Your task to perform on an android device: turn off airplane mode Image 0: 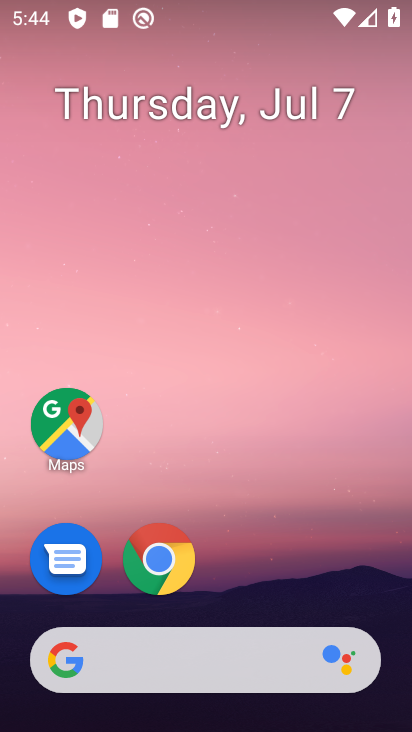
Step 0: drag from (229, 562) to (296, 7)
Your task to perform on an android device: turn off airplane mode Image 1: 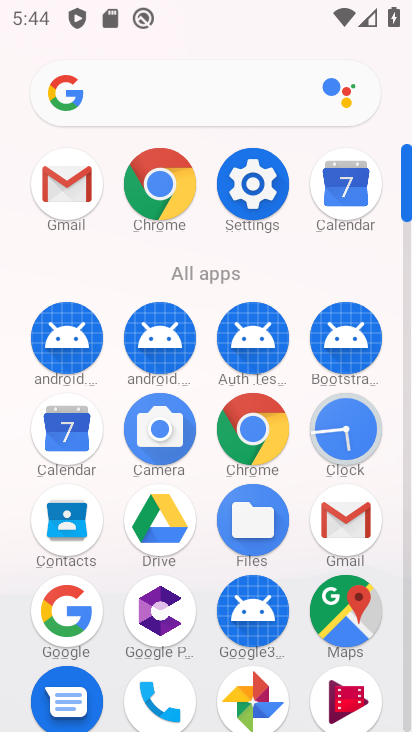
Step 1: click (246, 246)
Your task to perform on an android device: turn off airplane mode Image 2: 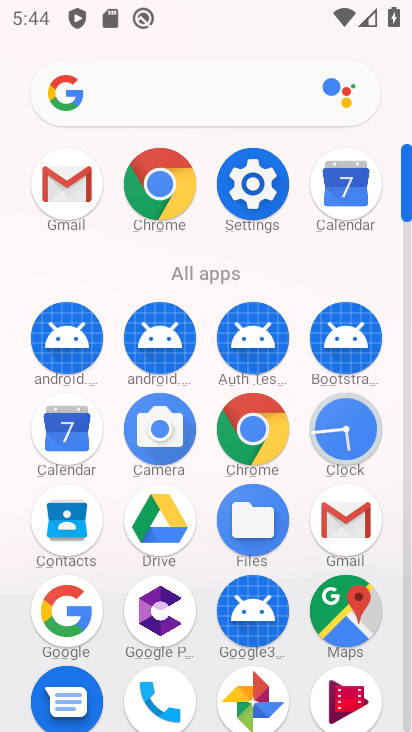
Step 2: click (252, 207)
Your task to perform on an android device: turn off airplane mode Image 3: 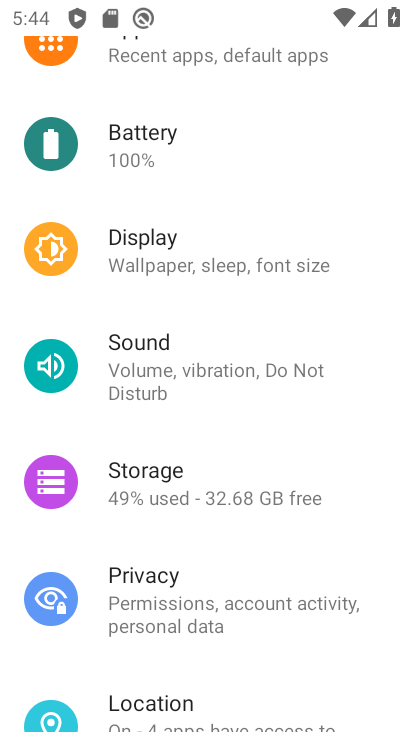
Step 3: drag from (252, 207) to (233, 641)
Your task to perform on an android device: turn off airplane mode Image 4: 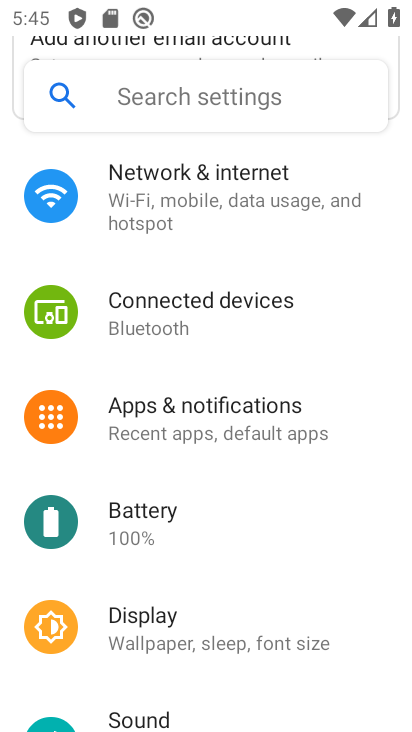
Step 4: click (202, 205)
Your task to perform on an android device: turn off airplane mode Image 5: 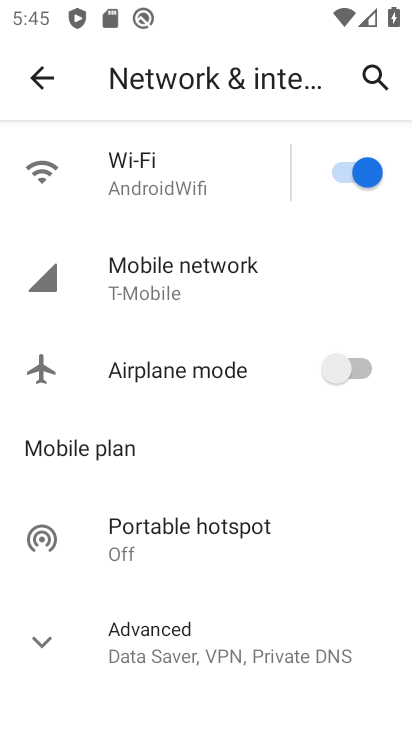
Step 5: task complete